Your task to perform on an android device: open app "PUBG MOBILE" (install if not already installed), go to login, and select forgot password Image 0: 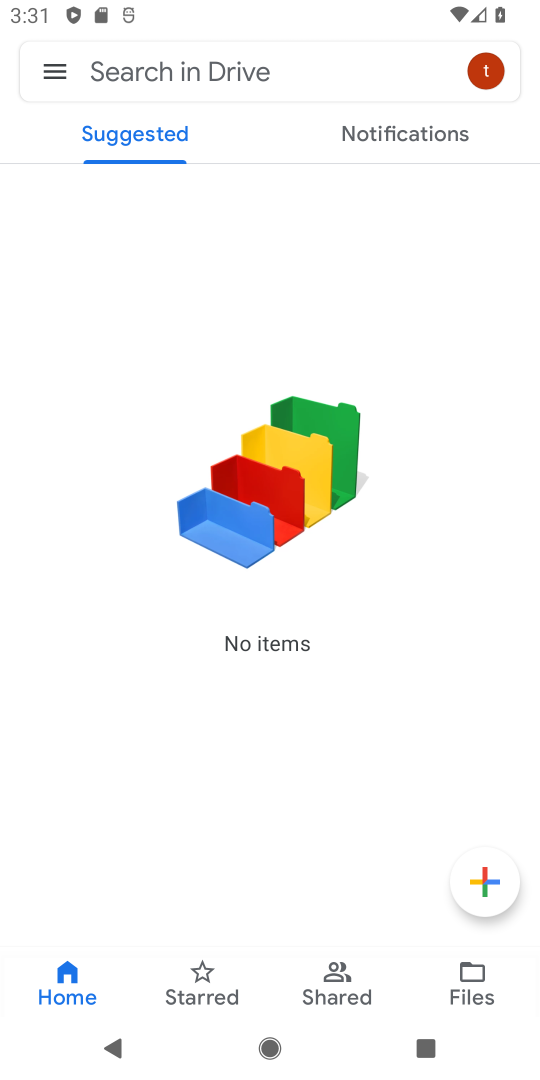
Step 0: press home button
Your task to perform on an android device: open app "PUBG MOBILE" (install if not already installed), go to login, and select forgot password Image 1: 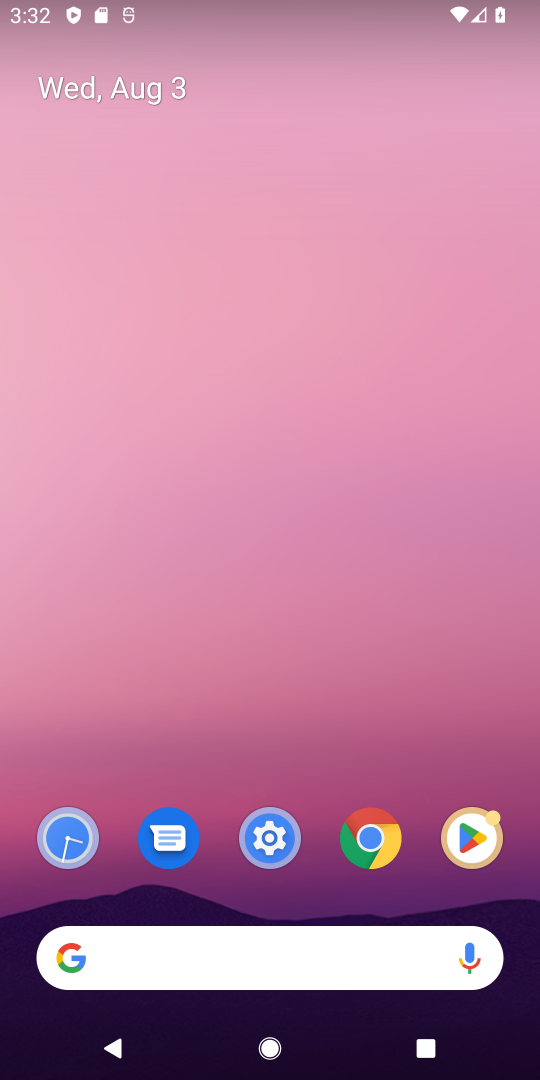
Step 1: click (478, 842)
Your task to perform on an android device: open app "PUBG MOBILE" (install if not already installed), go to login, and select forgot password Image 2: 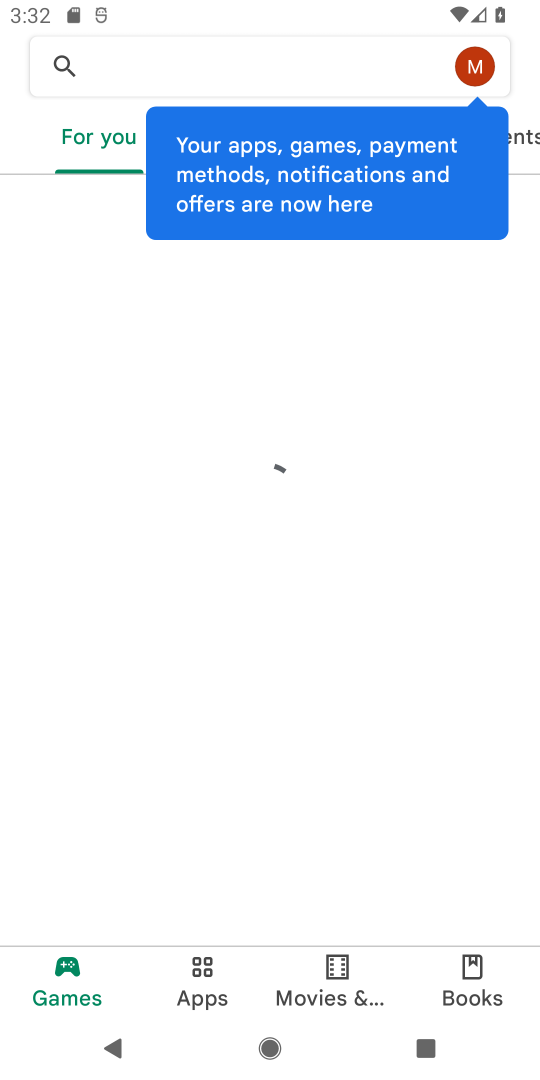
Step 2: click (69, 77)
Your task to perform on an android device: open app "PUBG MOBILE" (install if not already installed), go to login, and select forgot password Image 3: 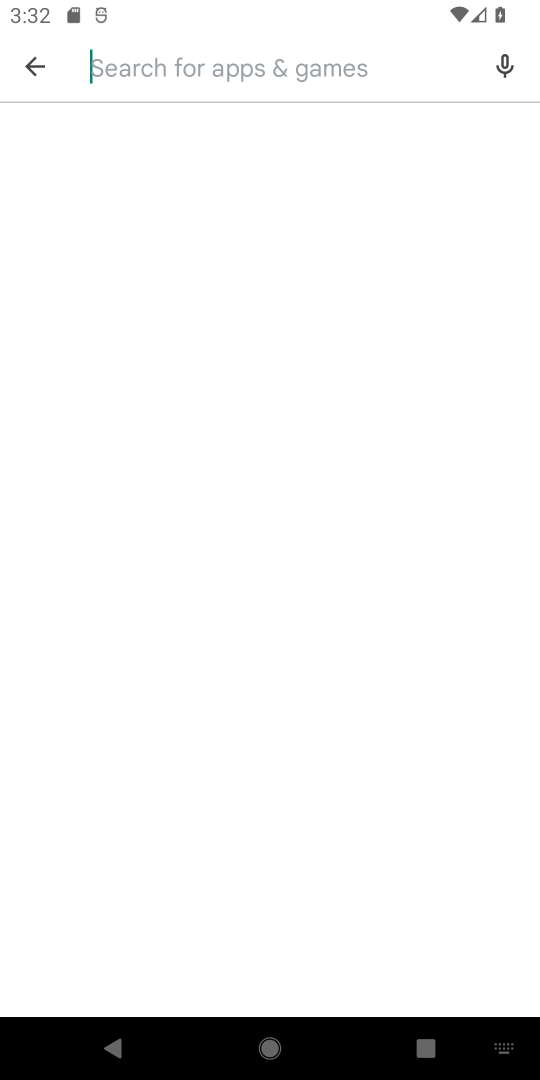
Step 3: type "pubg"
Your task to perform on an android device: open app "PUBG MOBILE" (install if not already installed), go to login, and select forgot password Image 4: 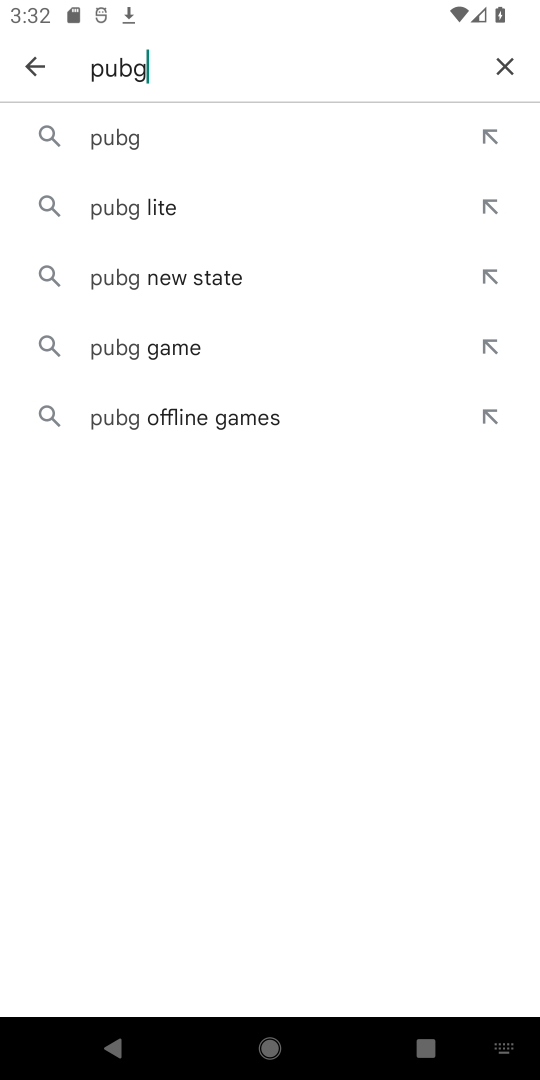
Step 4: click (130, 141)
Your task to perform on an android device: open app "PUBG MOBILE" (install if not already installed), go to login, and select forgot password Image 5: 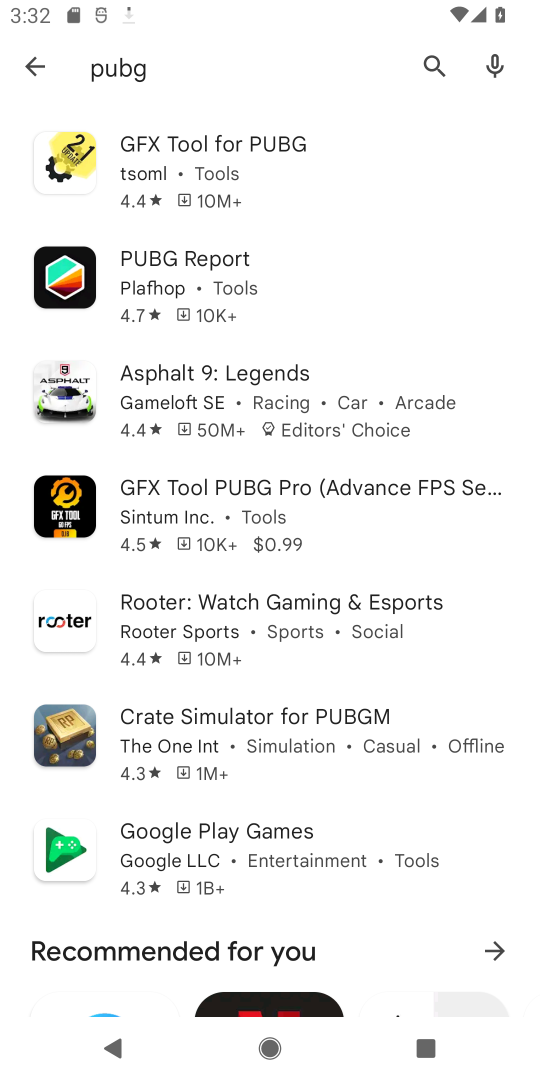
Step 5: task complete